Your task to perform on an android device: turn notification dots on Image 0: 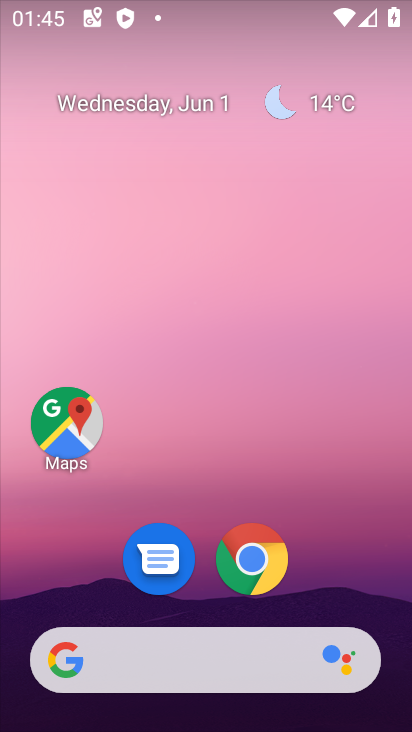
Step 0: click (326, 451)
Your task to perform on an android device: turn notification dots on Image 1: 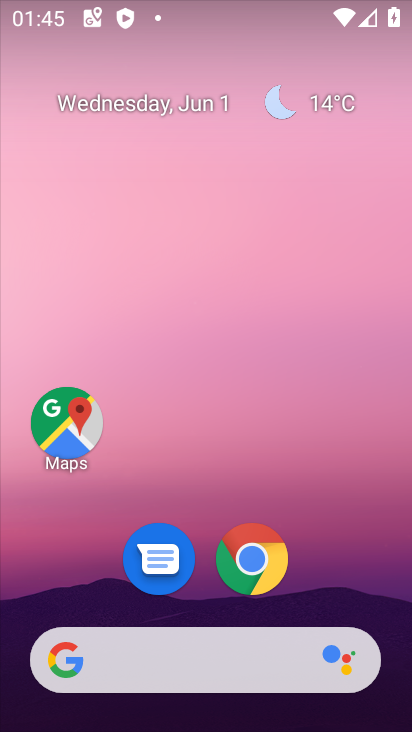
Step 1: drag from (401, 658) to (372, 128)
Your task to perform on an android device: turn notification dots on Image 2: 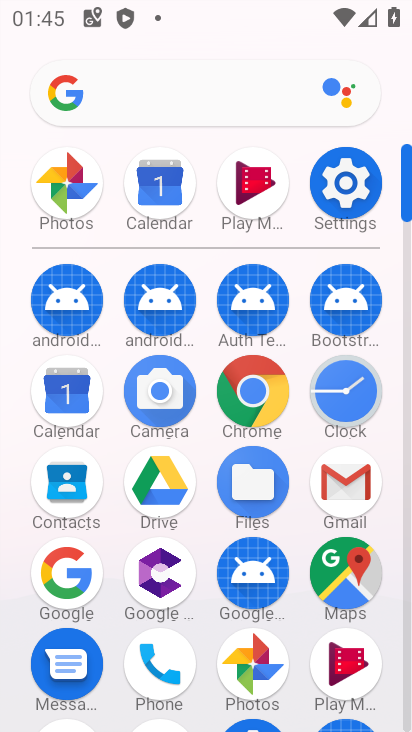
Step 2: click (353, 189)
Your task to perform on an android device: turn notification dots on Image 3: 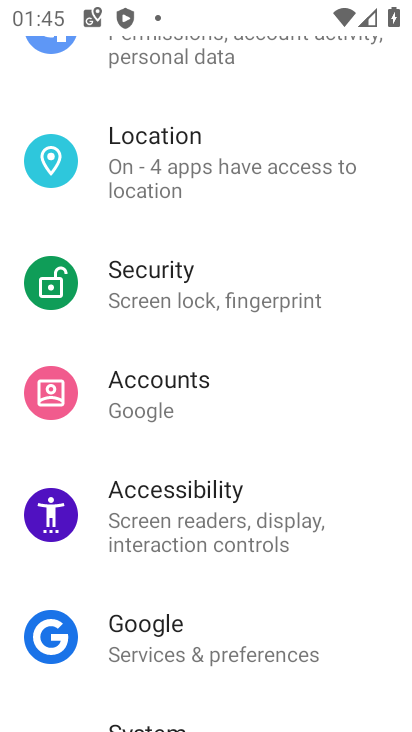
Step 3: drag from (319, 655) to (307, 246)
Your task to perform on an android device: turn notification dots on Image 4: 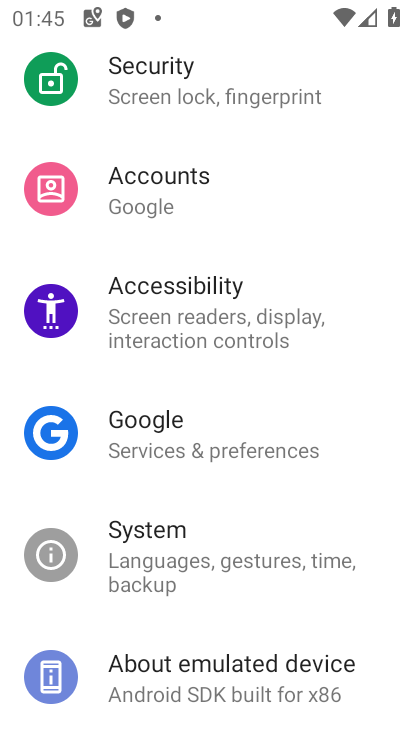
Step 4: drag from (357, 683) to (351, 312)
Your task to perform on an android device: turn notification dots on Image 5: 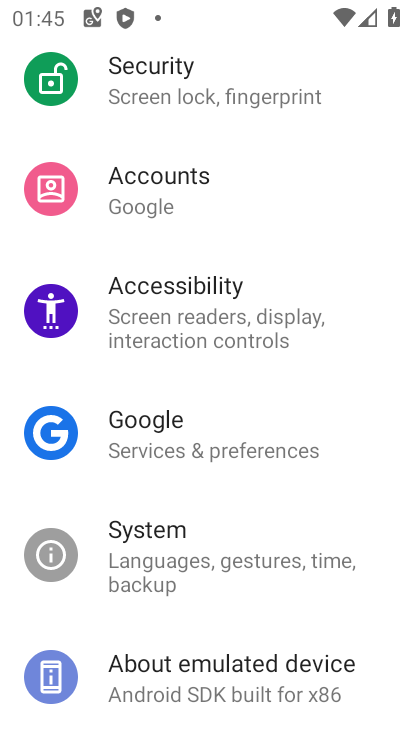
Step 5: drag from (271, 126) to (319, 484)
Your task to perform on an android device: turn notification dots on Image 6: 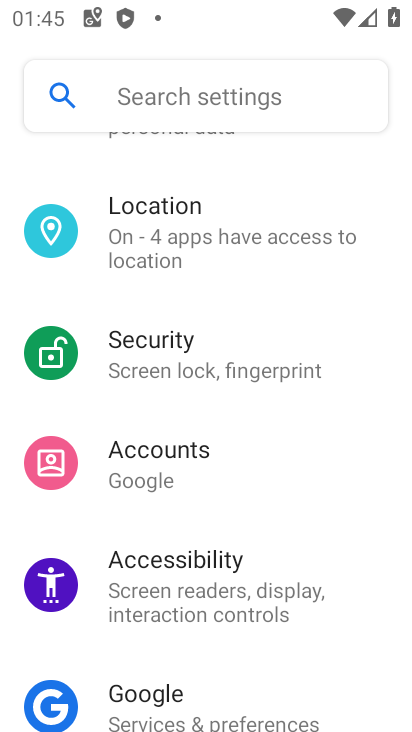
Step 6: drag from (285, 323) to (300, 573)
Your task to perform on an android device: turn notification dots on Image 7: 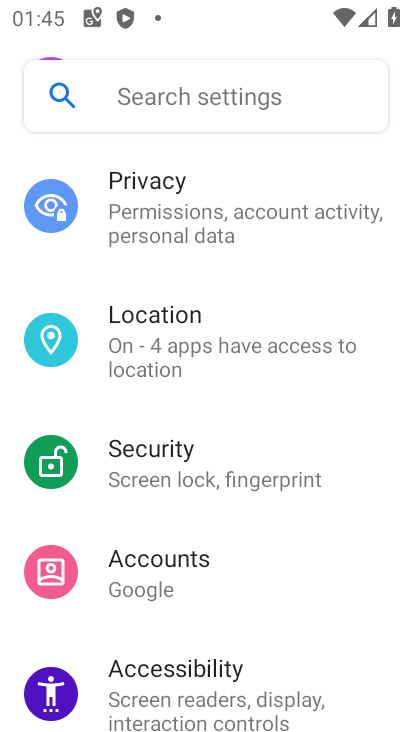
Step 7: drag from (287, 192) to (304, 593)
Your task to perform on an android device: turn notification dots on Image 8: 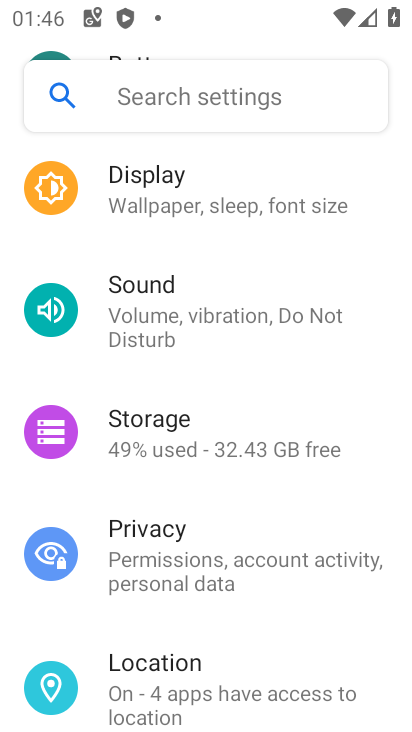
Step 8: drag from (261, 217) to (275, 671)
Your task to perform on an android device: turn notification dots on Image 9: 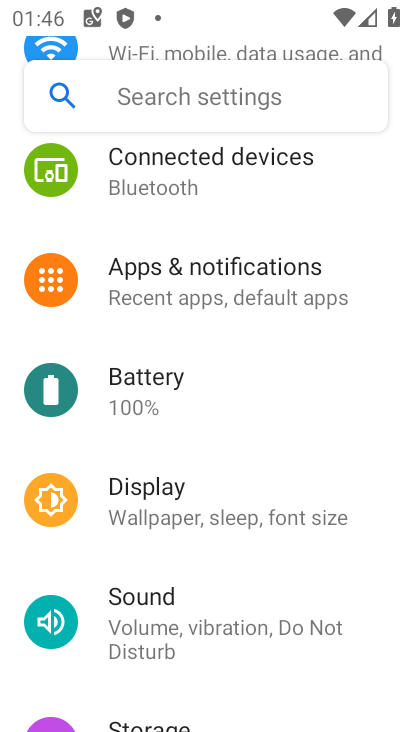
Step 9: click (201, 259)
Your task to perform on an android device: turn notification dots on Image 10: 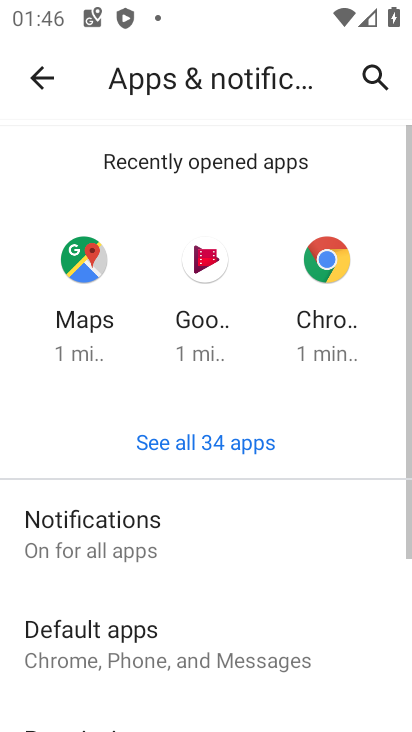
Step 10: click (53, 535)
Your task to perform on an android device: turn notification dots on Image 11: 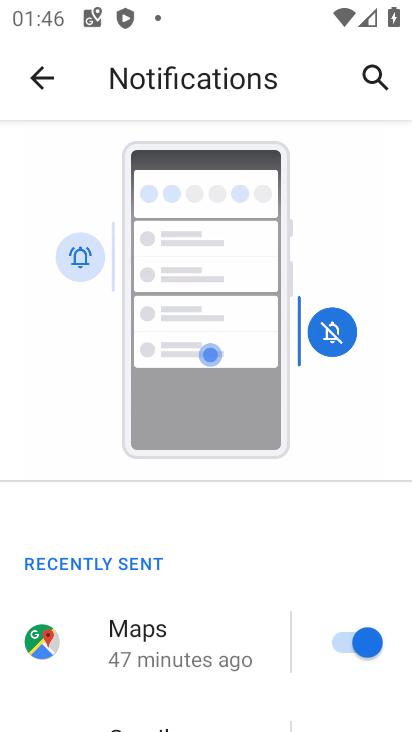
Step 11: drag from (259, 691) to (262, 33)
Your task to perform on an android device: turn notification dots on Image 12: 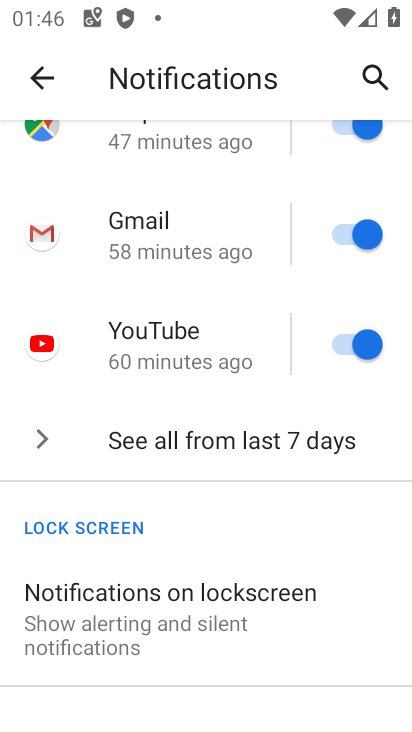
Step 12: drag from (203, 686) to (203, 249)
Your task to perform on an android device: turn notification dots on Image 13: 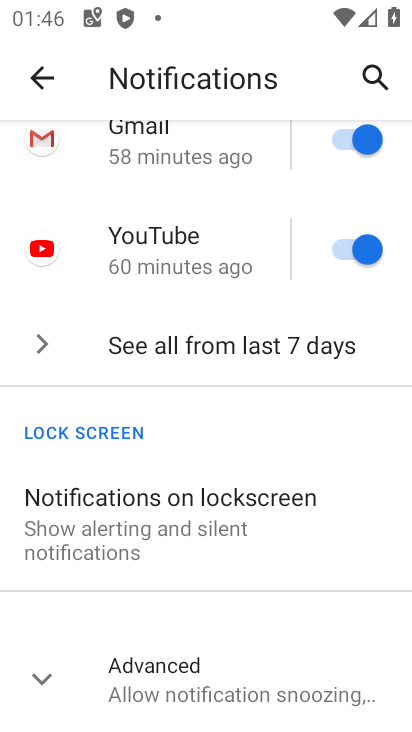
Step 13: click (39, 691)
Your task to perform on an android device: turn notification dots on Image 14: 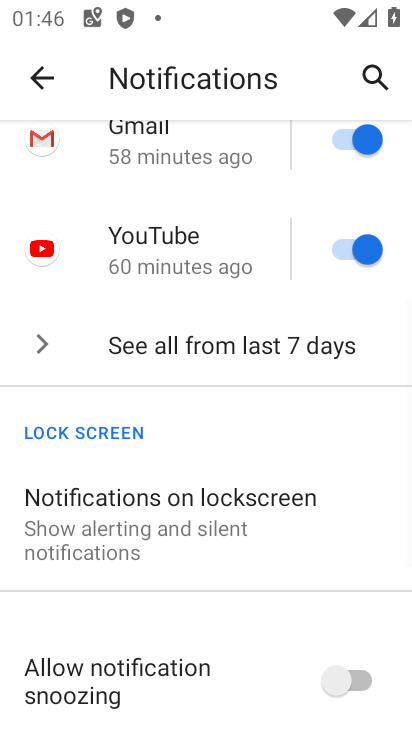
Step 14: drag from (273, 694) to (298, 152)
Your task to perform on an android device: turn notification dots on Image 15: 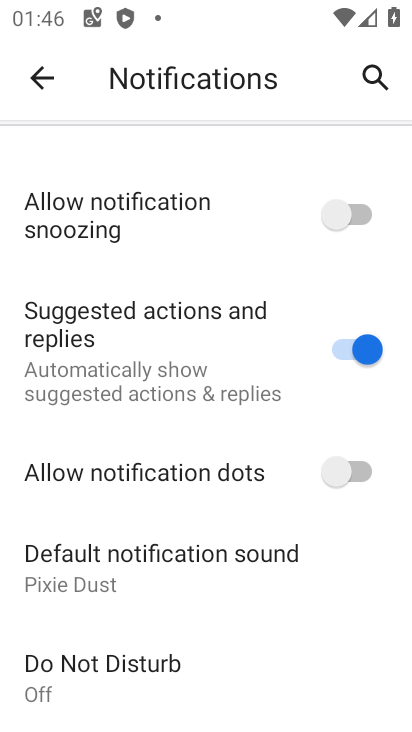
Step 15: click (357, 473)
Your task to perform on an android device: turn notification dots on Image 16: 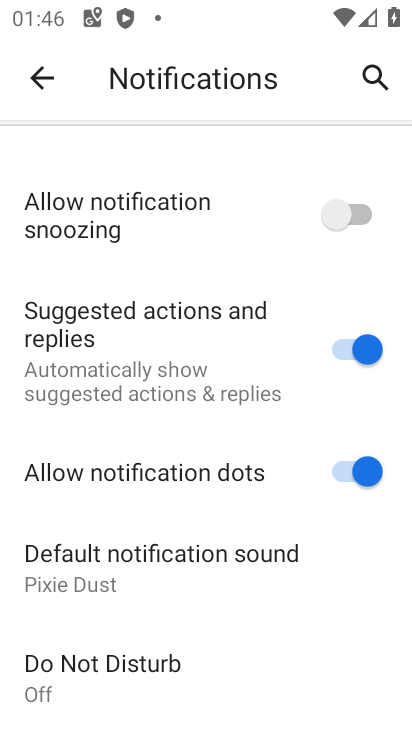
Step 16: task complete